Your task to perform on an android device: toggle javascript in the chrome app Image 0: 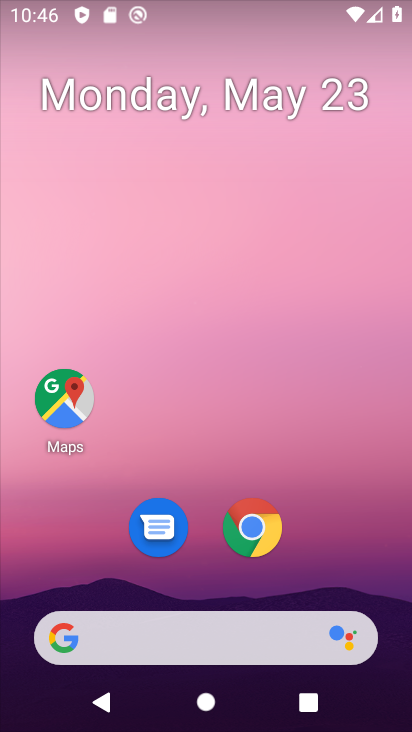
Step 0: click (251, 531)
Your task to perform on an android device: toggle javascript in the chrome app Image 1: 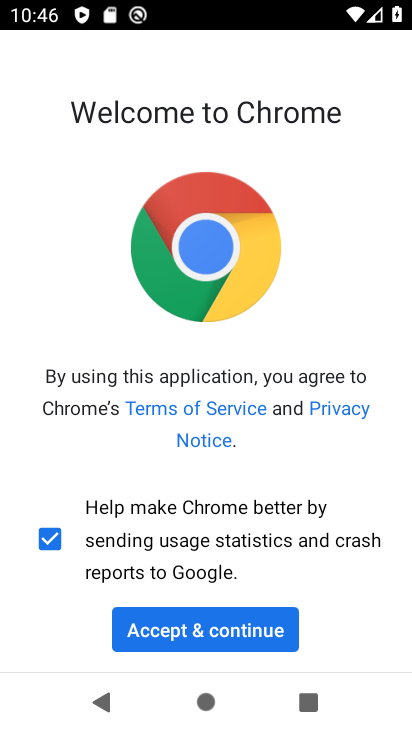
Step 1: click (262, 633)
Your task to perform on an android device: toggle javascript in the chrome app Image 2: 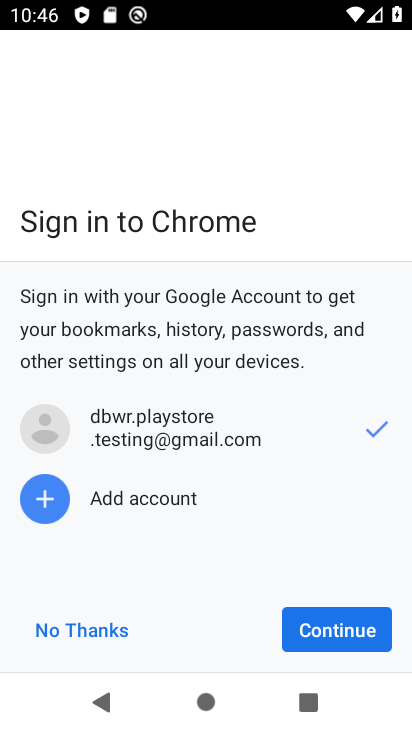
Step 2: click (344, 639)
Your task to perform on an android device: toggle javascript in the chrome app Image 3: 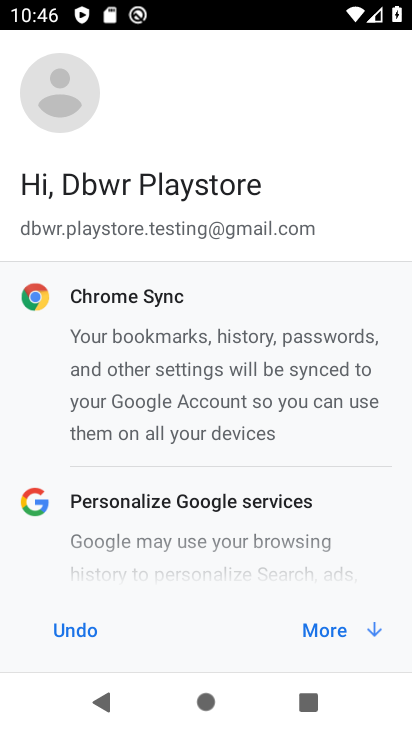
Step 3: click (326, 632)
Your task to perform on an android device: toggle javascript in the chrome app Image 4: 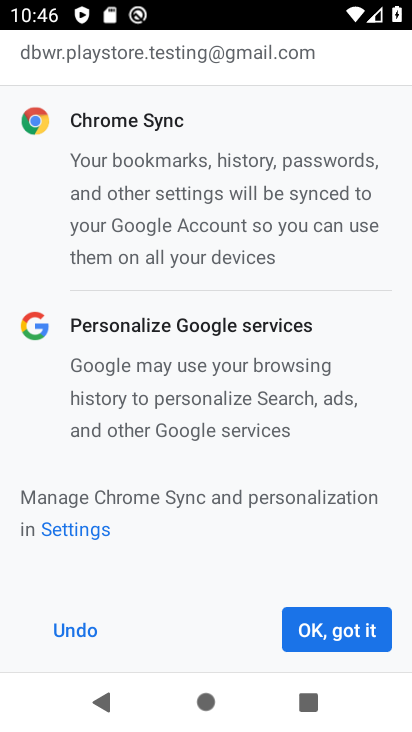
Step 4: click (327, 632)
Your task to perform on an android device: toggle javascript in the chrome app Image 5: 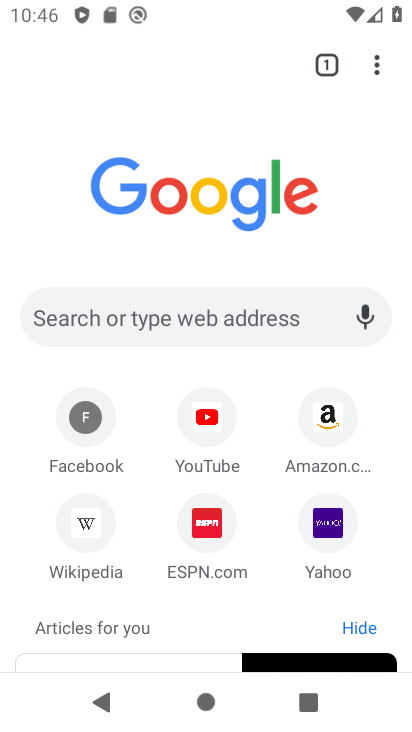
Step 5: click (374, 67)
Your task to perform on an android device: toggle javascript in the chrome app Image 6: 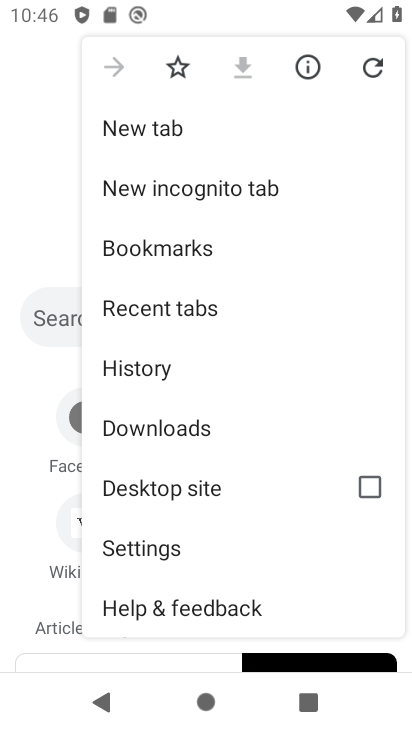
Step 6: click (165, 545)
Your task to perform on an android device: toggle javascript in the chrome app Image 7: 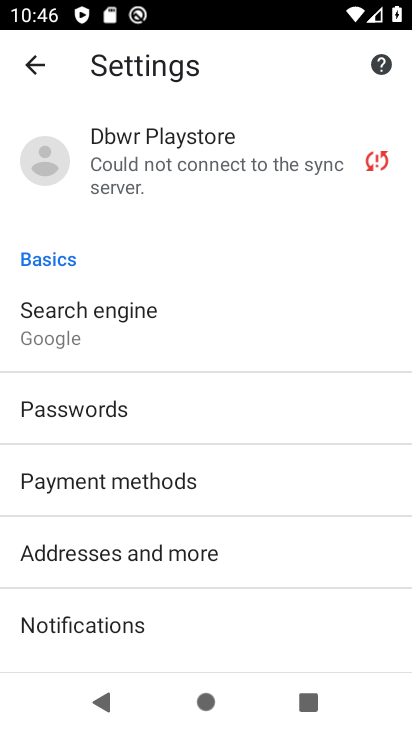
Step 7: drag from (158, 632) to (197, 232)
Your task to perform on an android device: toggle javascript in the chrome app Image 8: 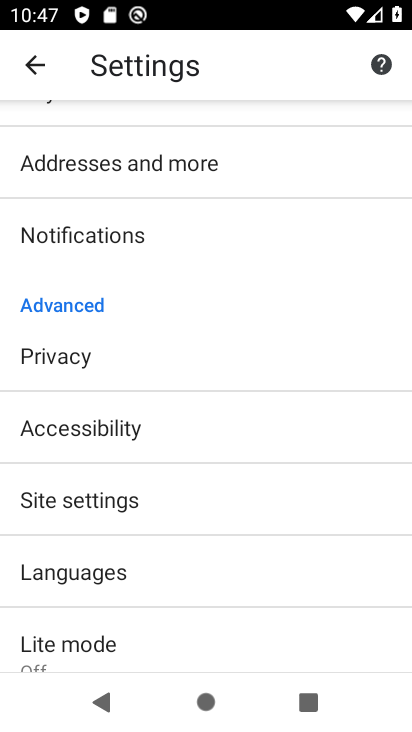
Step 8: drag from (119, 609) to (146, 307)
Your task to perform on an android device: toggle javascript in the chrome app Image 9: 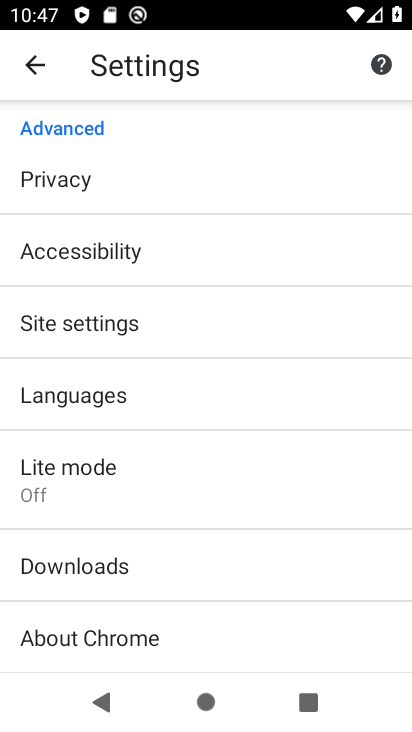
Step 9: click (98, 325)
Your task to perform on an android device: toggle javascript in the chrome app Image 10: 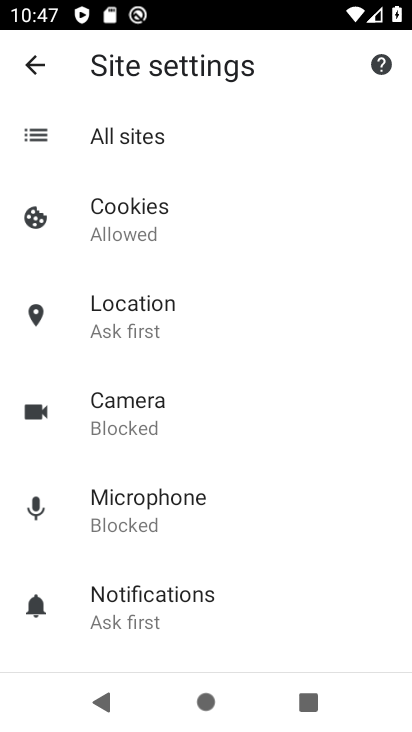
Step 10: drag from (161, 592) to (219, 301)
Your task to perform on an android device: toggle javascript in the chrome app Image 11: 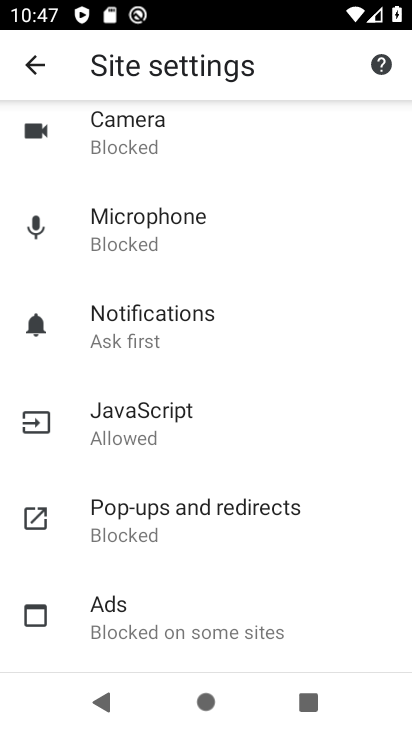
Step 11: click (164, 435)
Your task to perform on an android device: toggle javascript in the chrome app Image 12: 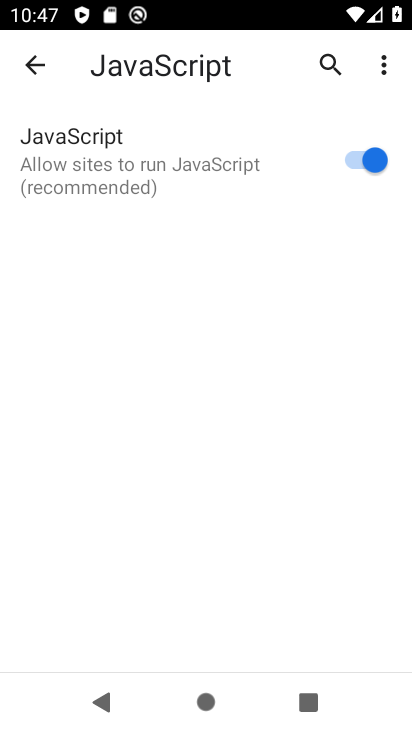
Step 12: click (346, 161)
Your task to perform on an android device: toggle javascript in the chrome app Image 13: 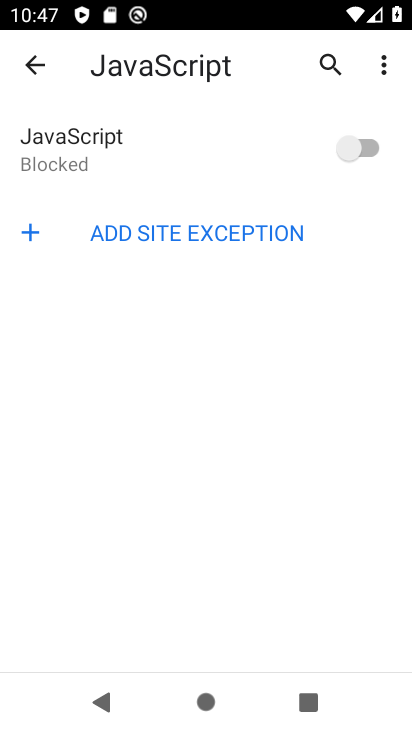
Step 13: task complete